Your task to perform on an android device: Open wifi settings Image 0: 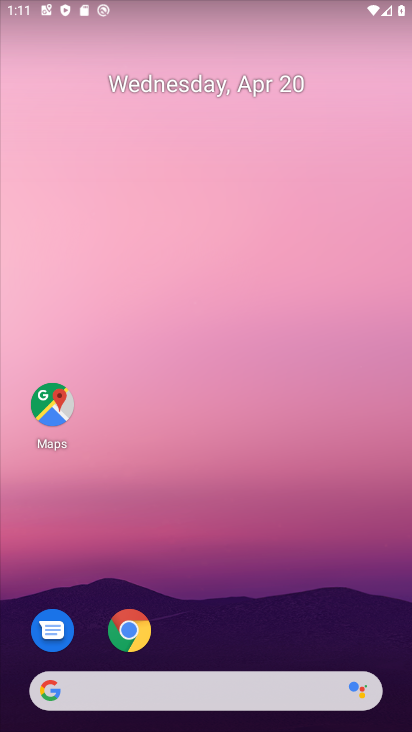
Step 0: click (366, 133)
Your task to perform on an android device: Open wifi settings Image 1: 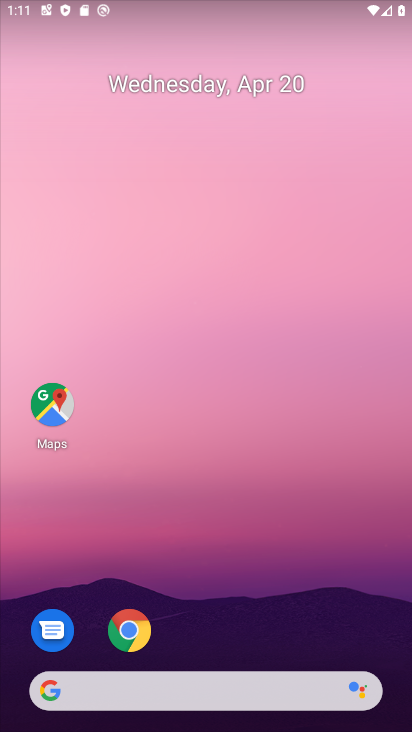
Step 1: drag from (372, 614) to (335, 221)
Your task to perform on an android device: Open wifi settings Image 2: 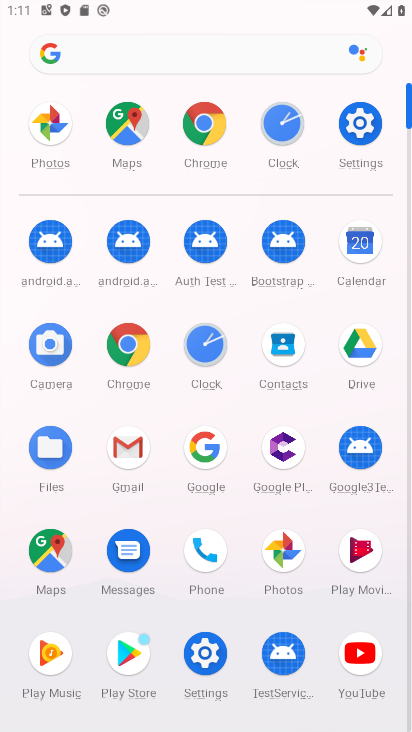
Step 2: click (371, 135)
Your task to perform on an android device: Open wifi settings Image 3: 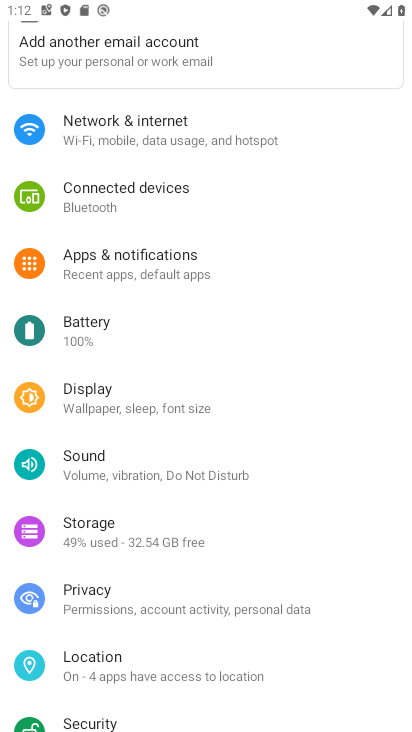
Step 3: click (240, 132)
Your task to perform on an android device: Open wifi settings Image 4: 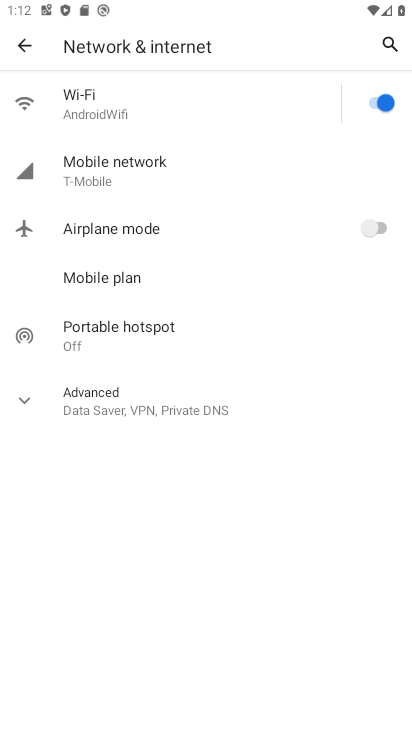
Step 4: click (203, 112)
Your task to perform on an android device: Open wifi settings Image 5: 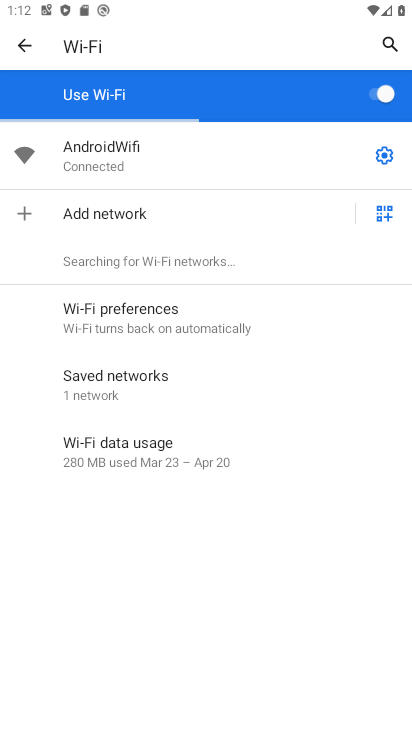
Step 5: click (387, 157)
Your task to perform on an android device: Open wifi settings Image 6: 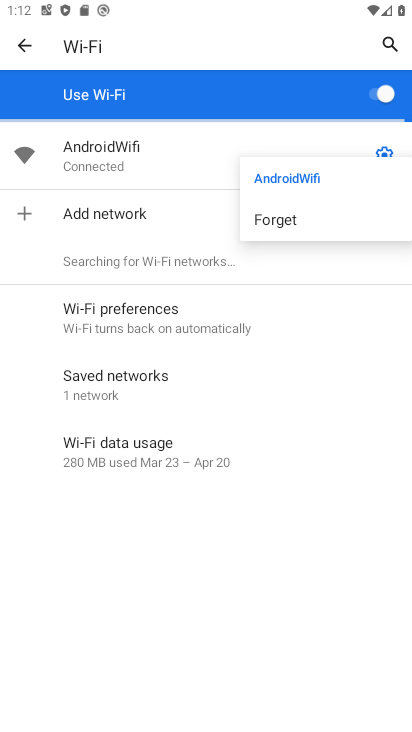
Step 6: click (385, 140)
Your task to perform on an android device: Open wifi settings Image 7: 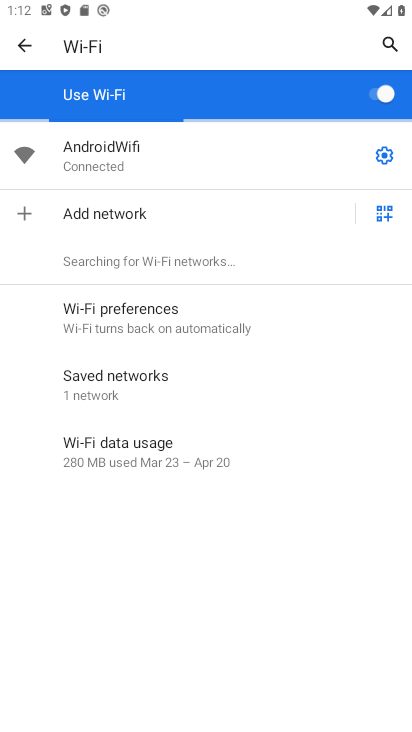
Step 7: click (394, 162)
Your task to perform on an android device: Open wifi settings Image 8: 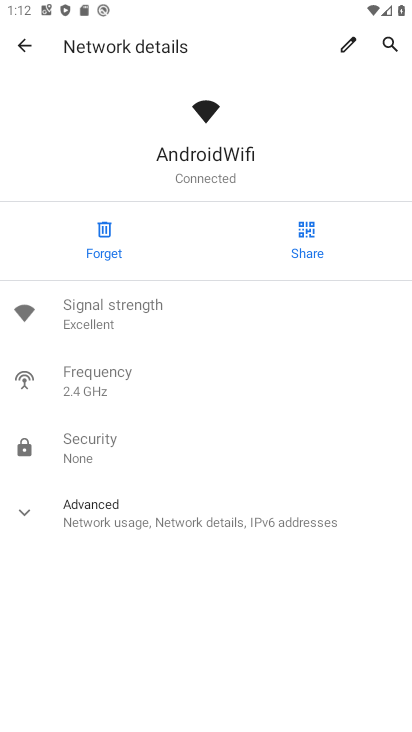
Step 8: task complete